Your task to perform on an android device: open app "Pluto TV - Live TV and Movies" Image 0: 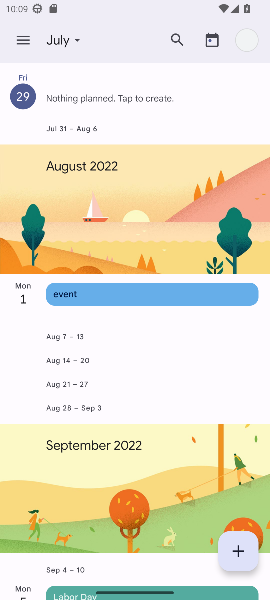
Step 0: press home button
Your task to perform on an android device: open app "Pluto TV - Live TV and Movies" Image 1: 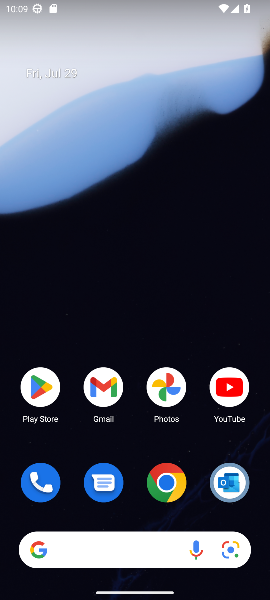
Step 1: click (35, 388)
Your task to perform on an android device: open app "Pluto TV - Live TV and Movies" Image 2: 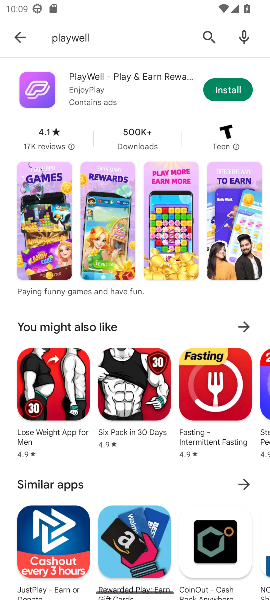
Step 2: click (207, 39)
Your task to perform on an android device: open app "Pluto TV - Live TV and Movies" Image 3: 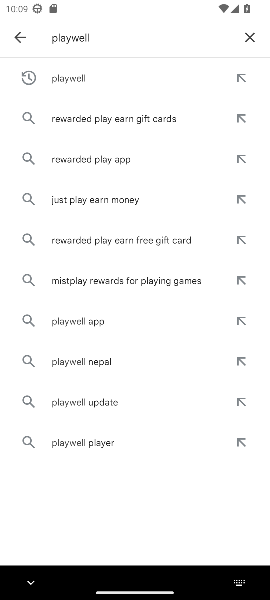
Step 3: click (247, 34)
Your task to perform on an android device: open app "Pluto TV - Live TV and Movies" Image 4: 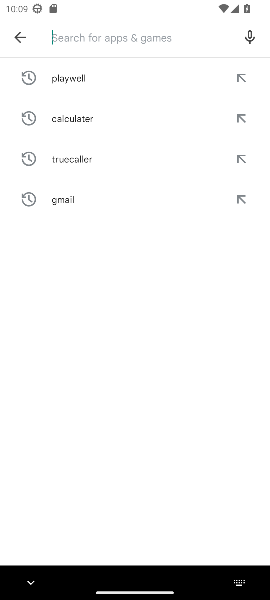
Step 4: type "Pluto TV - Live TV and Movies"
Your task to perform on an android device: open app "Pluto TV - Live TV and Movies" Image 5: 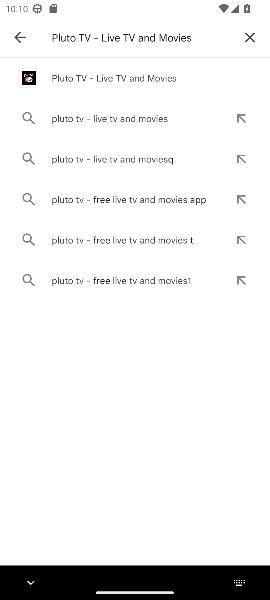
Step 5: click (131, 76)
Your task to perform on an android device: open app "Pluto TV - Live TV and Movies" Image 6: 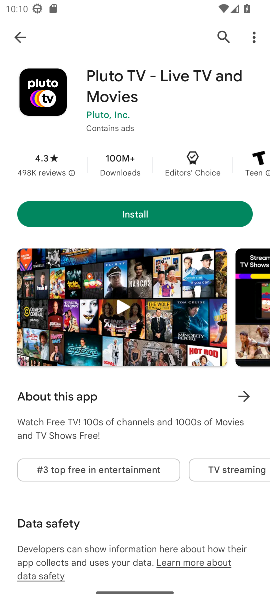
Step 6: task complete